Your task to perform on an android device: turn on the 12-hour format for clock Image 0: 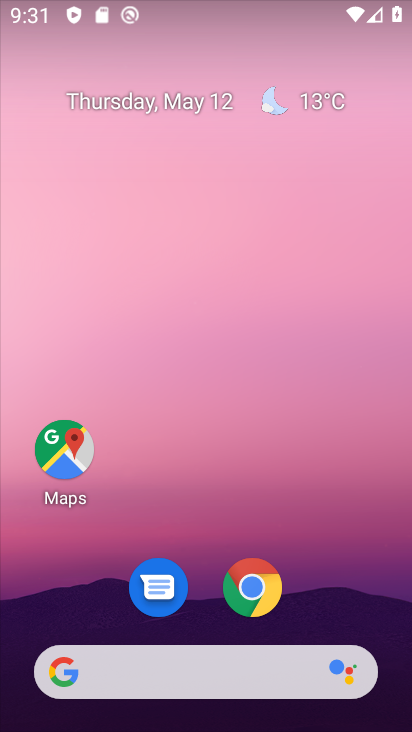
Step 0: drag from (331, 470) to (295, 133)
Your task to perform on an android device: turn on the 12-hour format for clock Image 1: 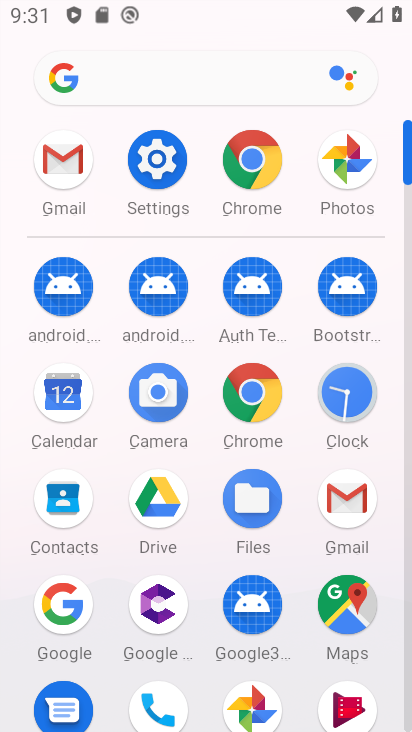
Step 1: click (365, 411)
Your task to perform on an android device: turn on the 12-hour format for clock Image 2: 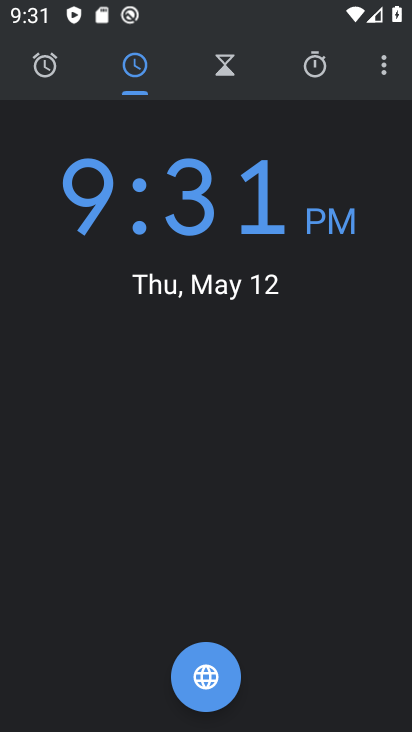
Step 2: click (376, 56)
Your task to perform on an android device: turn on the 12-hour format for clock Image 3: 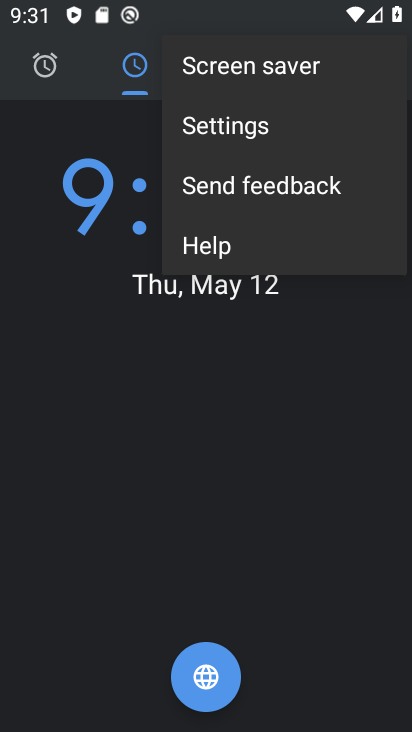
Step 3: click (229, 141)
Your task to perform on an android device: turn on the 12-hour format for clock Image 4: 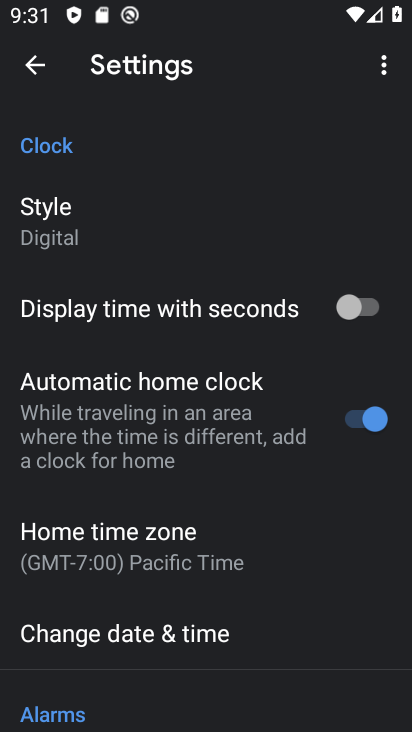
Step 4: click (196, 627)
Your task to perform on an android device: turn on the 12-hour format for clock Image 5: 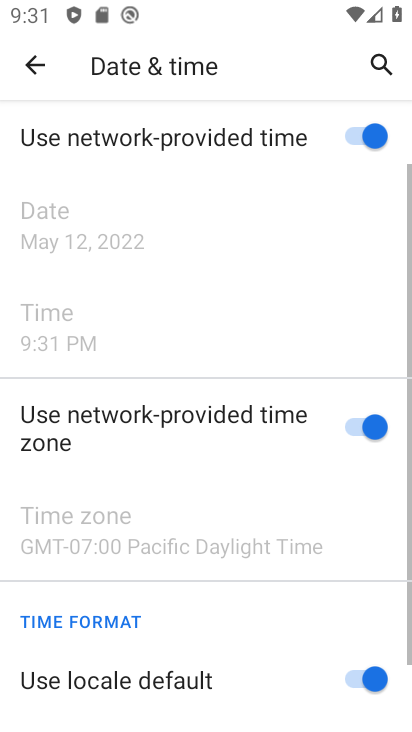
Step 5: task complete